Your task to perform on an android device: Show me recent news Image 0: 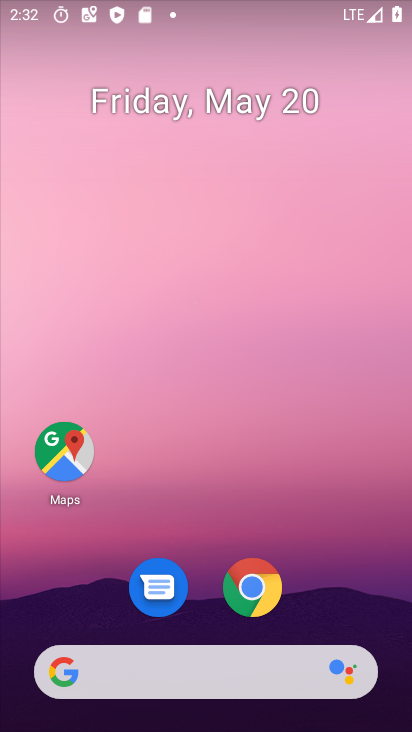
Step 0: click (252, 582)
Your task to perform on an android device: Show me recent news Image 1: 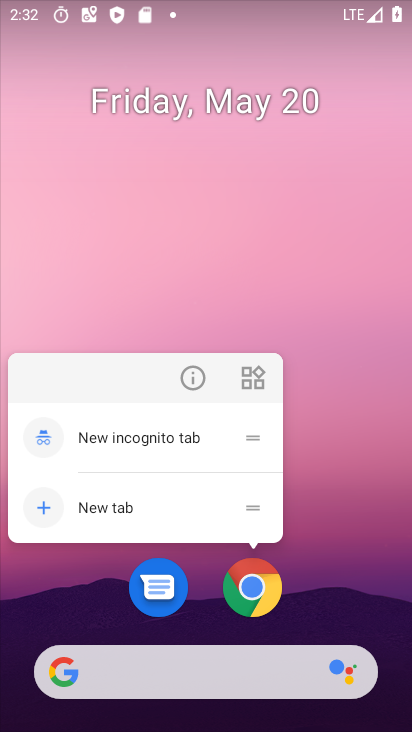
Step 1: click (247, 588)
Your task to perform on an android device: Show me recent news Image 2: 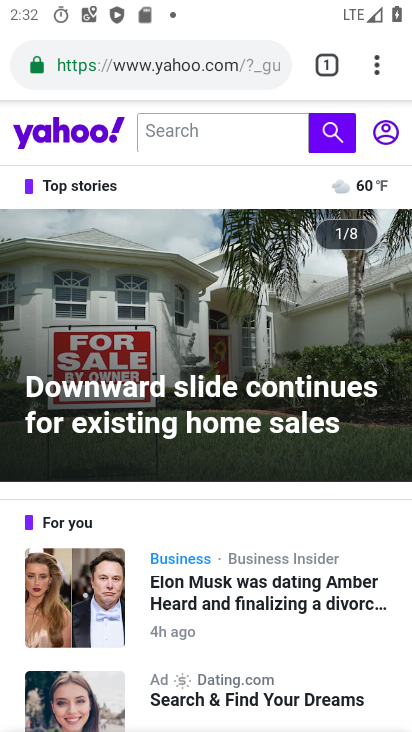
Step 2: click (240, 61)
Your task to perform on an android device: Show me recent news Image 3: 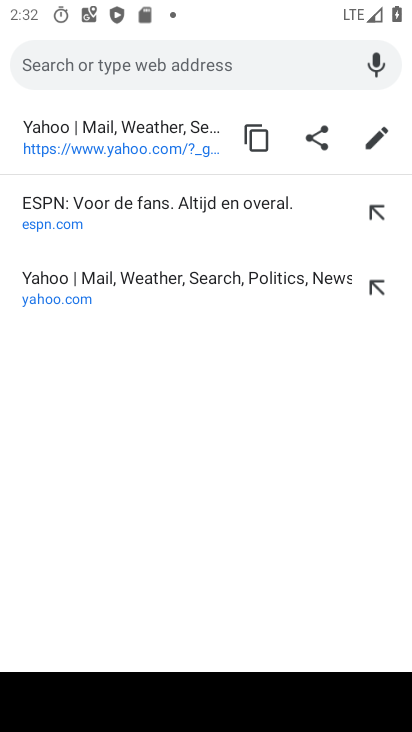
Step 3: type "news"
Your task to perform on an android device: Show me recent news Image 4: 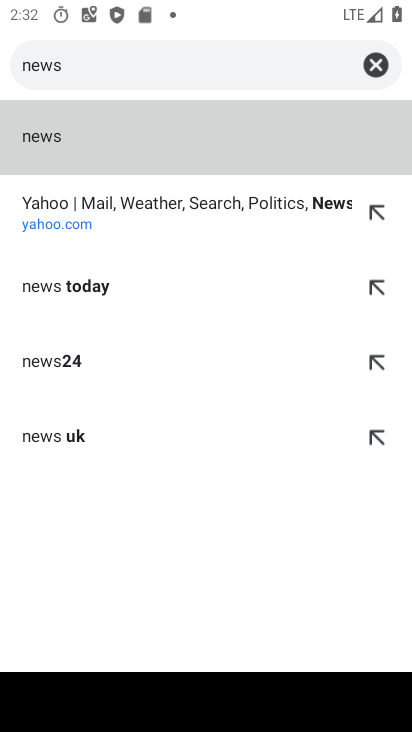
Step 4: click (91, 145)
Your task to perform on an android device: Show me recent news Image 5: 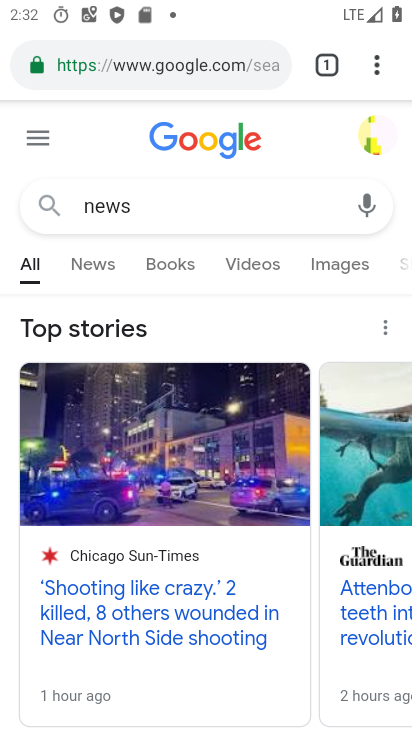
Step 5: click (106, 274)
Your task to perform on an android device: Show me recent news Image 6: 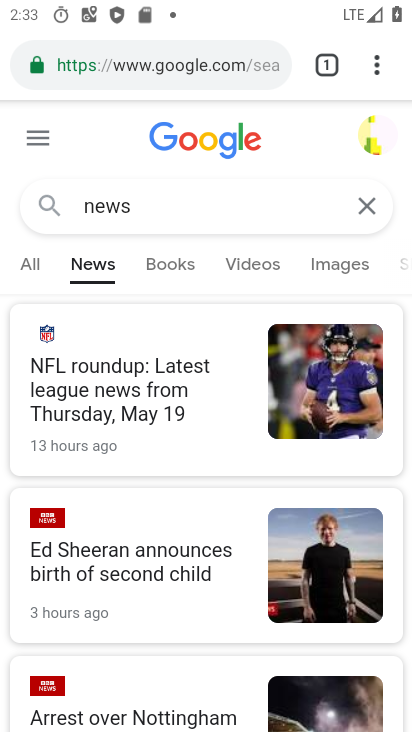
Step 6: task complete